Your task to perform on an android device: View the shopping cart on amazon. Add dell alienware to the cart on amazon Image 0: 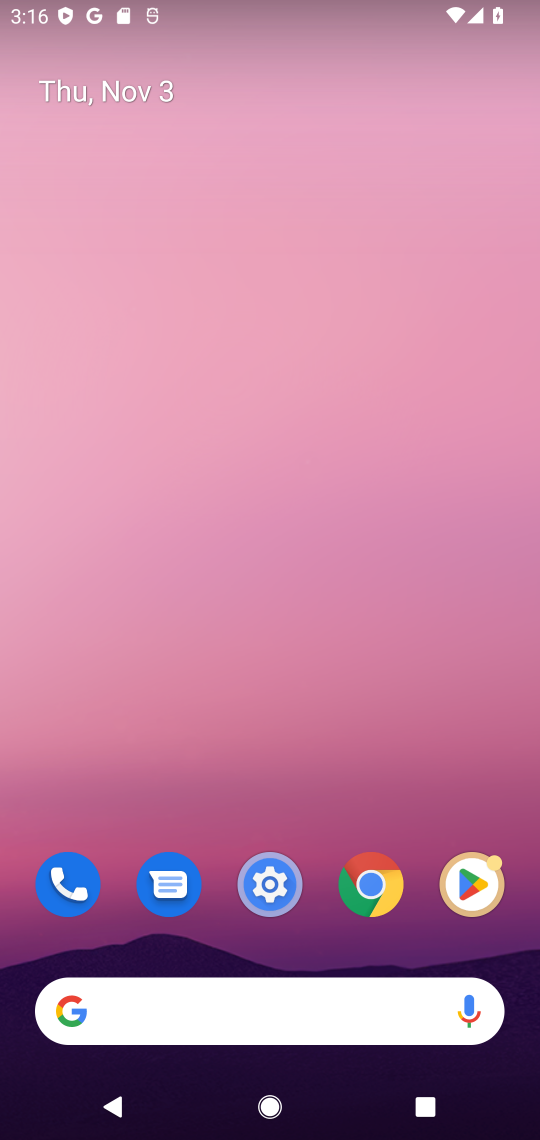
Step 0: press home button
Your task to perform on an android device: View the shopping cart on amazon. Add dell alienware to the cart on amazon Image 1: 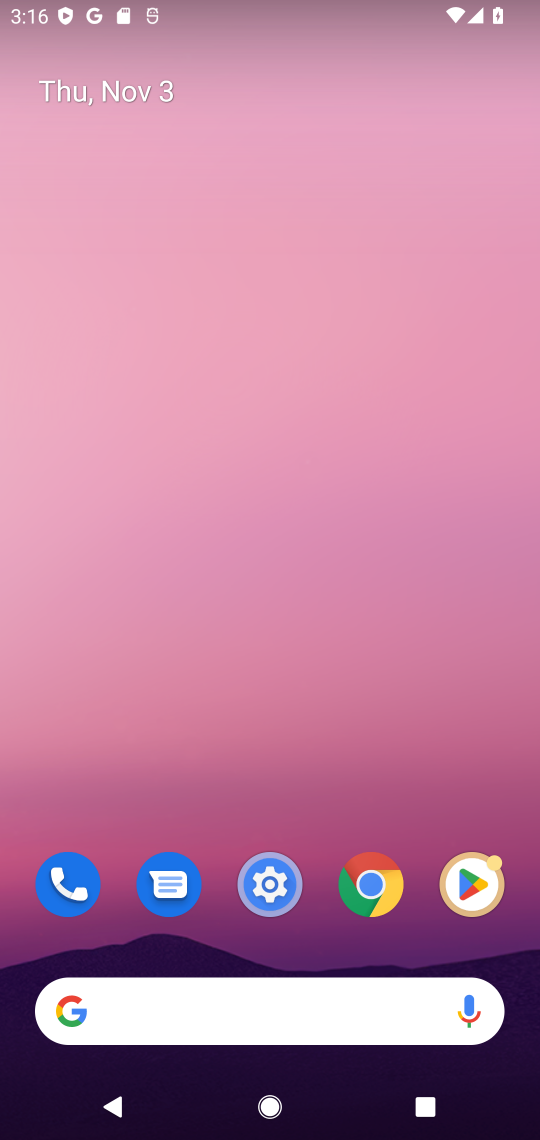
Step 1: click (104, 1005)
Your task to perform on an android device: View the shopping cart on amazon. Add dell alienware to the cart on amazon Image 2: 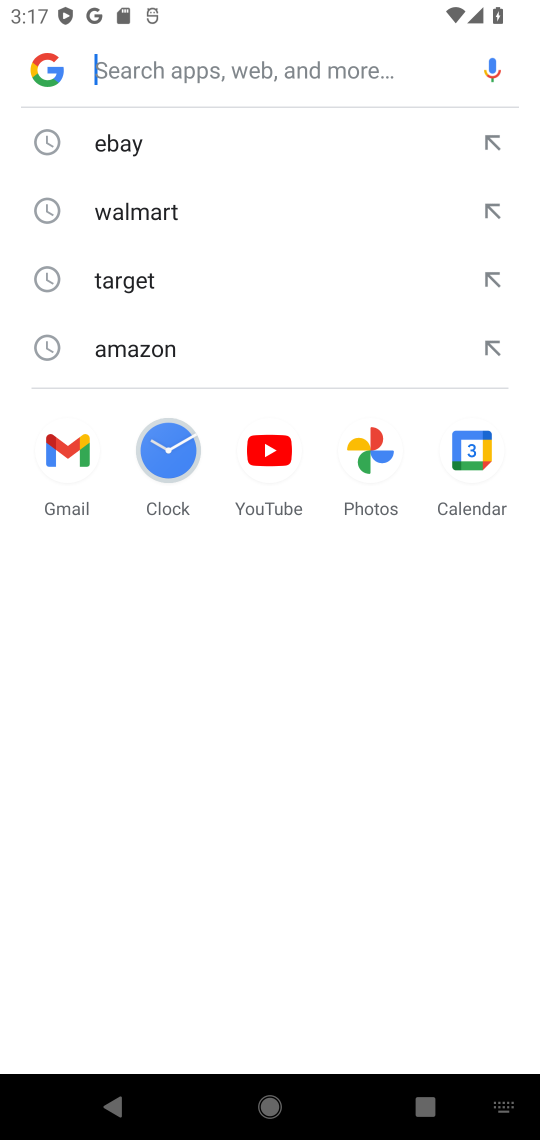
Step 2: type "amazon"
Your task to perform on an android device: View the shopping cart on amazon. Add dell alienware to the cart on amazon Image 3: 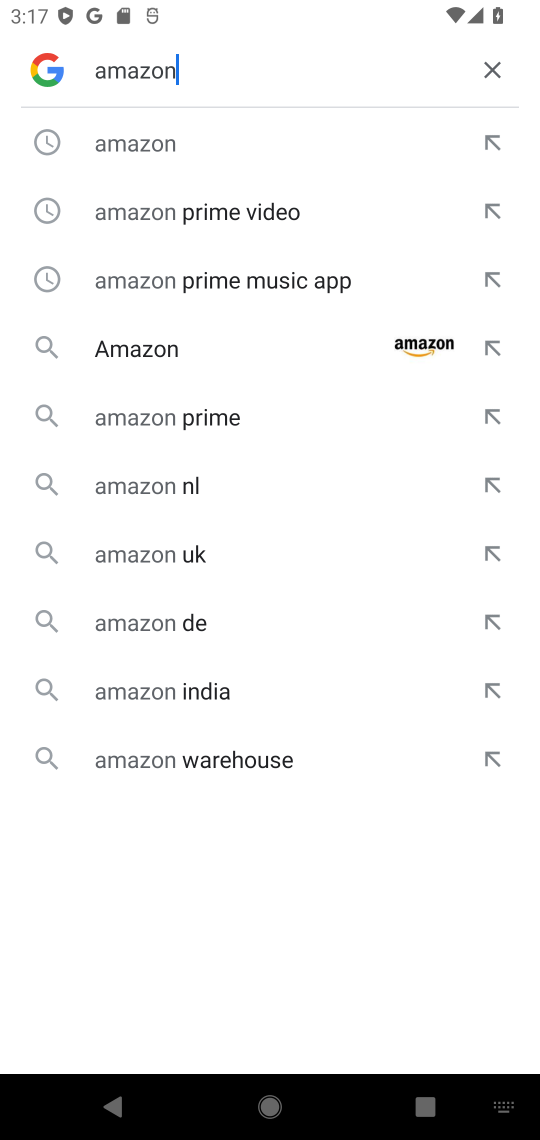
Step 3: press enter
Your task to perform on an android device: View the shopping cart on amazon. Add dell alienware to the cart on amazon Image 4: 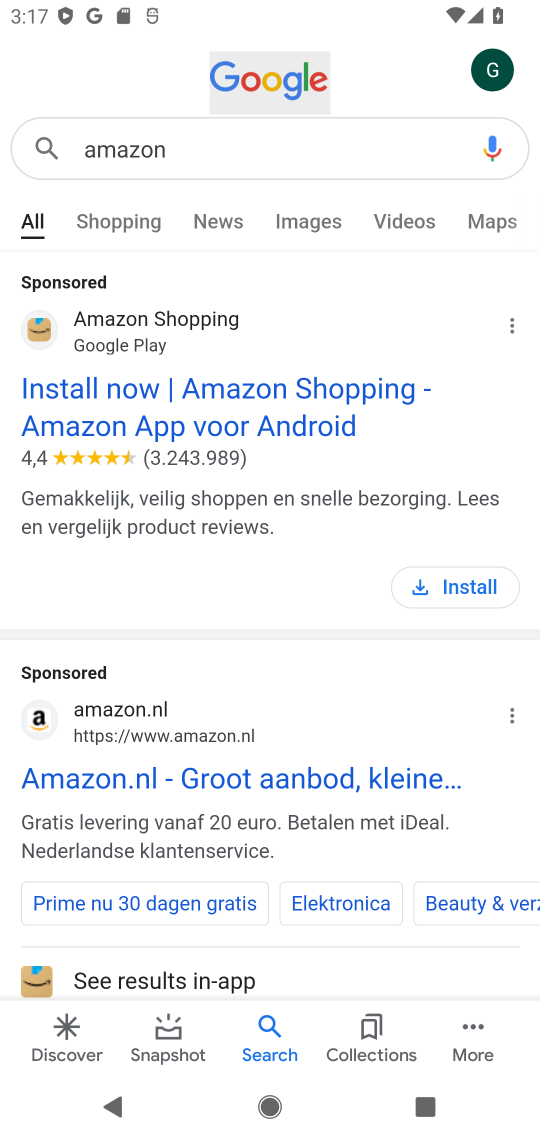
Step 4: drag from (387, 875) to (379, 333)
Your task to perform on an android device: View the shopping cart on amazon. Add dell alienware to the cart on amazon Image 5: 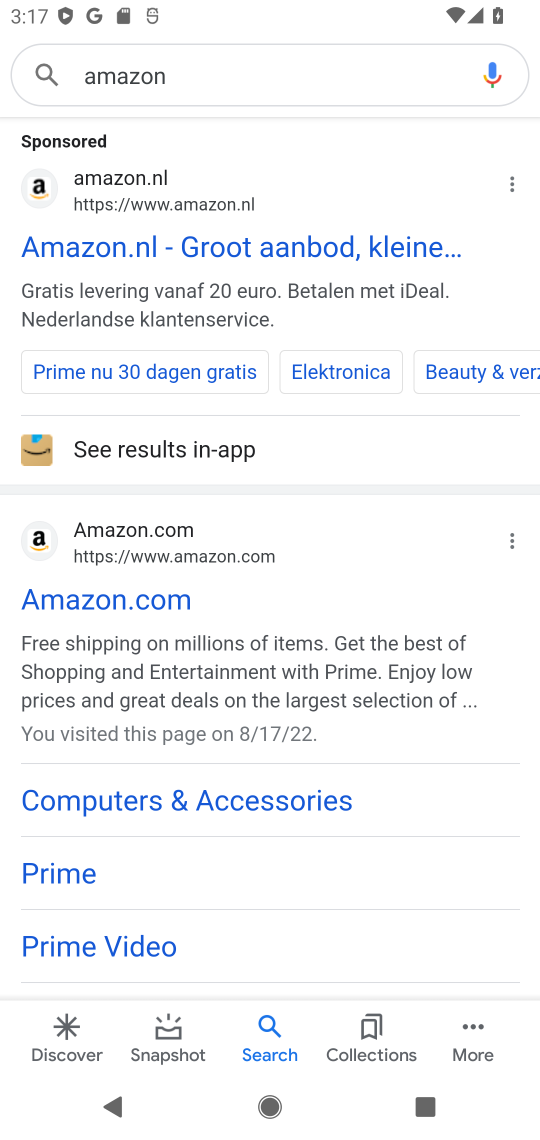
Step 5: click (135, 605)
Your task to perform on an android device: View the shopping cart on amazon. Add dell alienware to the cart on amazon Image 6: 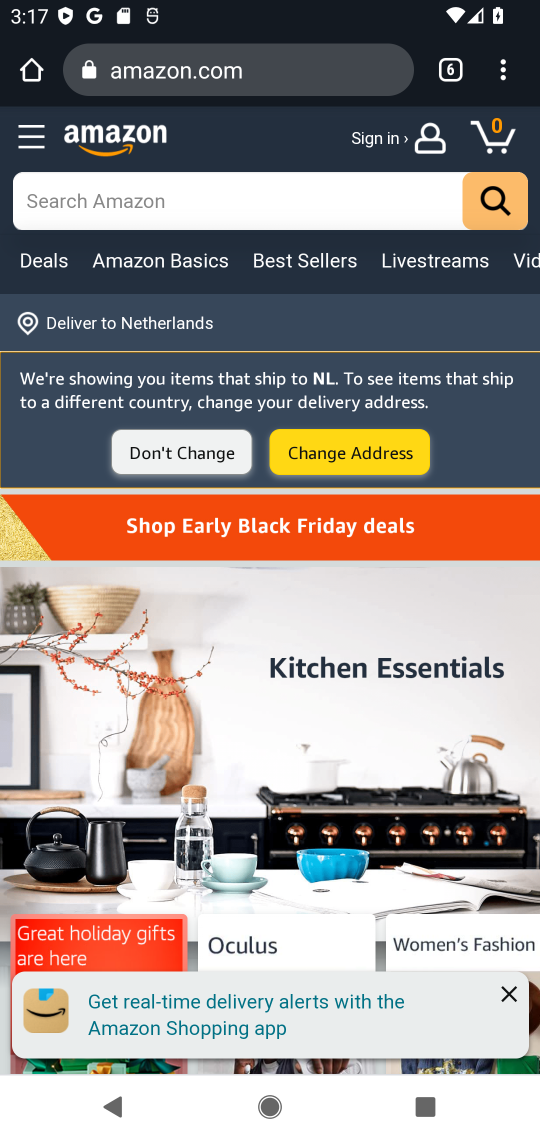
Step 6: click (498, 136)
Your task to perform on an android device: View the shopping cart on amazon. Add dell alienware to the cart on amazon Image 7: 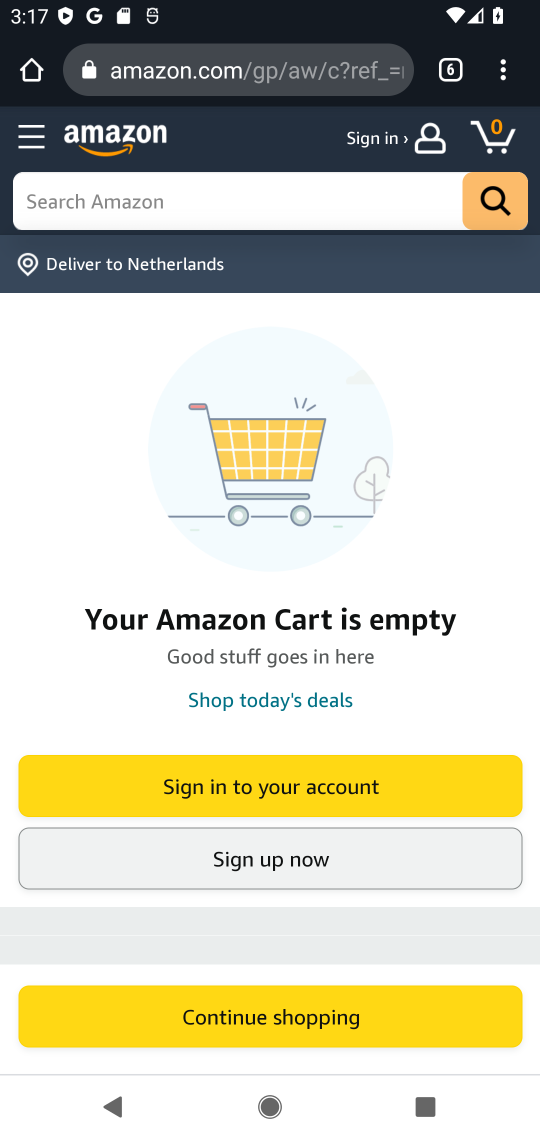
Step 7: click (77, 203)
Your task to perform on an android device: View the shopping cart on amazon. Add dell alienware to the cart on amazon Image 8: 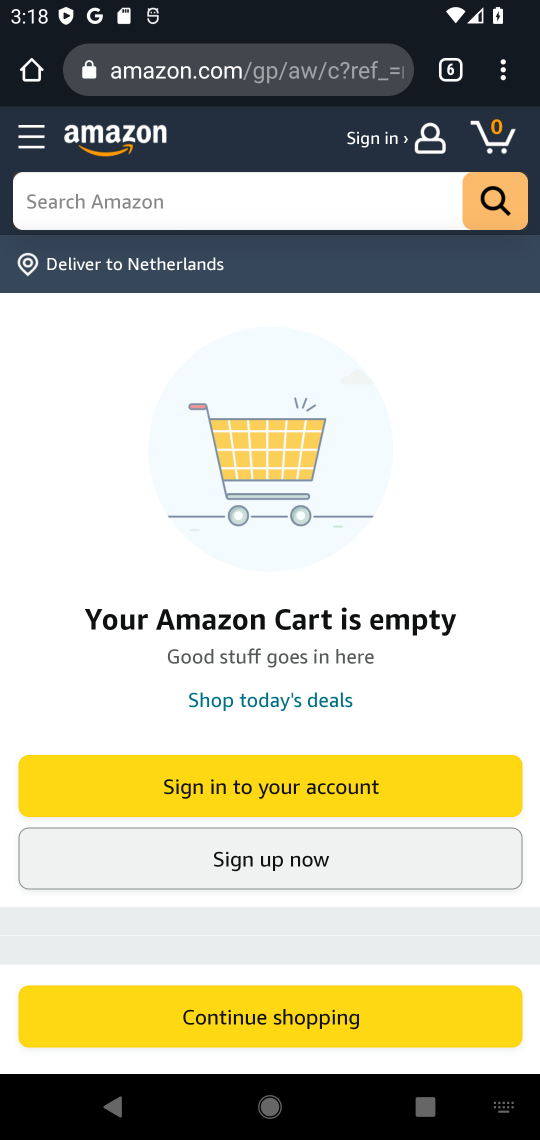
Step 8: type "dell alienware"
Your task to perform on an android device: View the shopping cart on amazon. Add dell alienware to the cart on amazon Image 9: 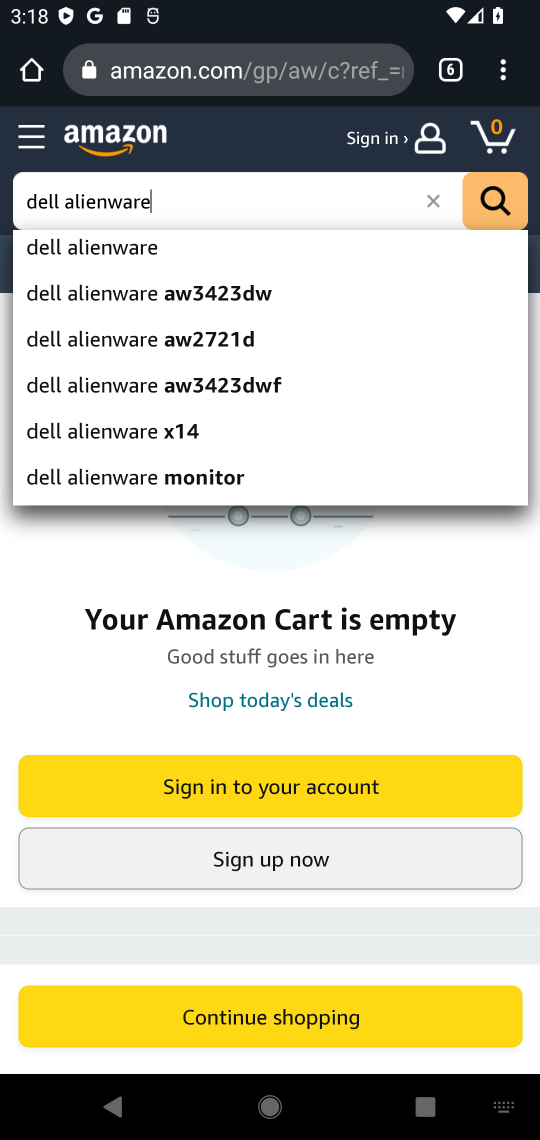
Step 9: click (497, 201)
Your task to perform on an android device: View the shopping cart on amazon. Add dell alienware to the cart on amazon Image 10: 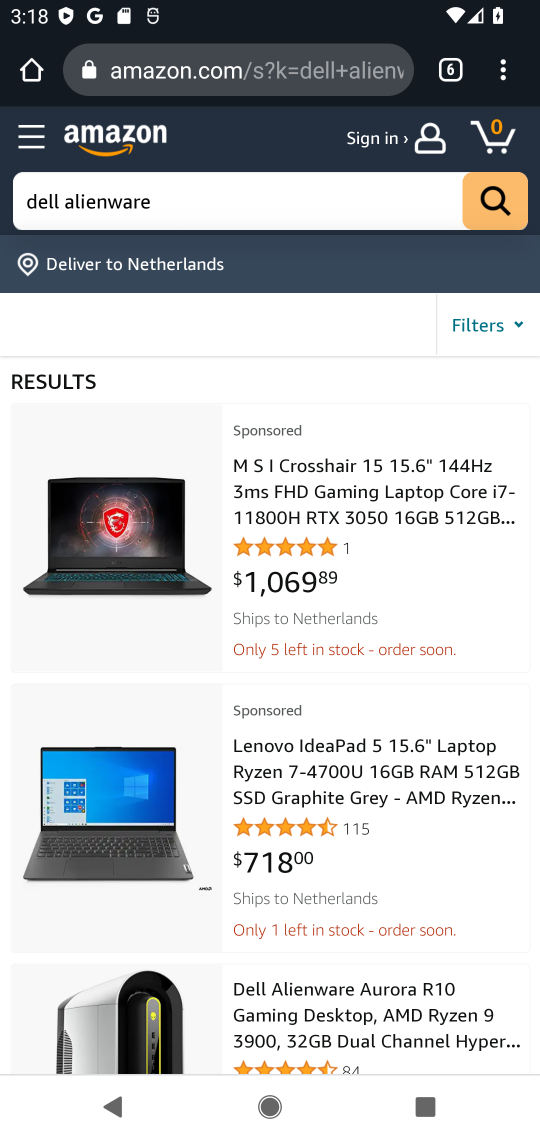
Step 10: drag from (378, 946) to (396, 766)
Your task to perform on an android device: View the shopping cart on amazon. Add dell alienware to the cart on amazon Image 11: 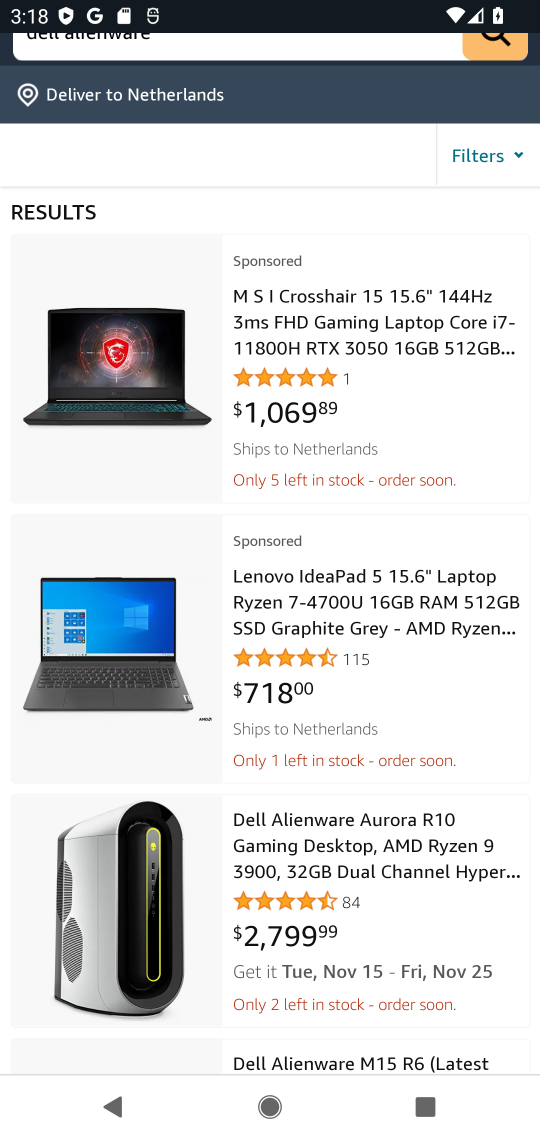
Step 11: drag from (384, 941) to (426, 555)
Your task to perform on an android device: View the shopping cart on amazon. Add dell alienware to the cart on amazon Image 12: 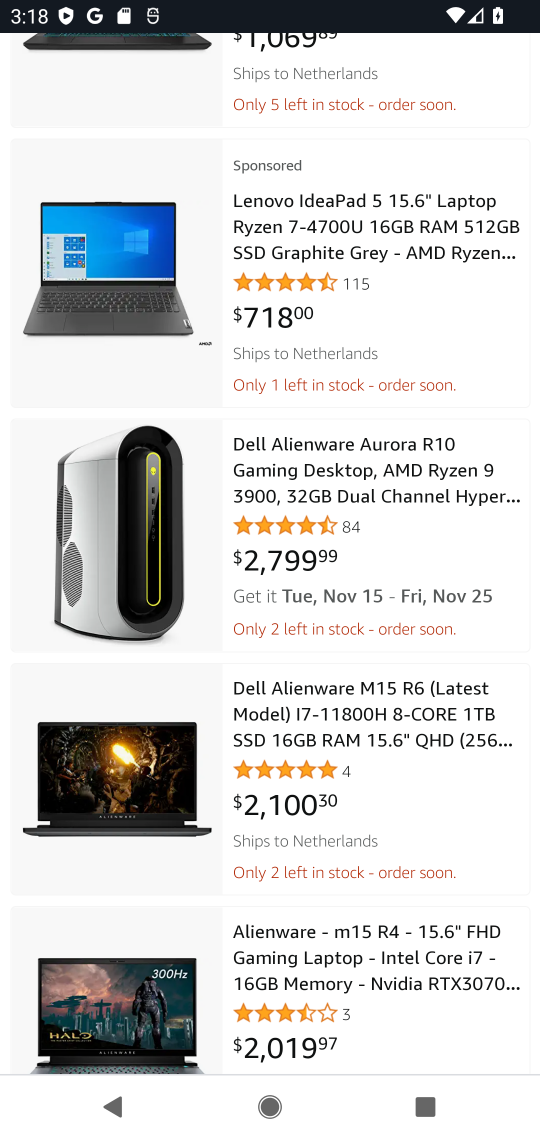
Step 12: click (271, 471)
Your task to perform on an android device: View the shopping cart on amazon. Add dell alienware to the cart on amazon Image 13: 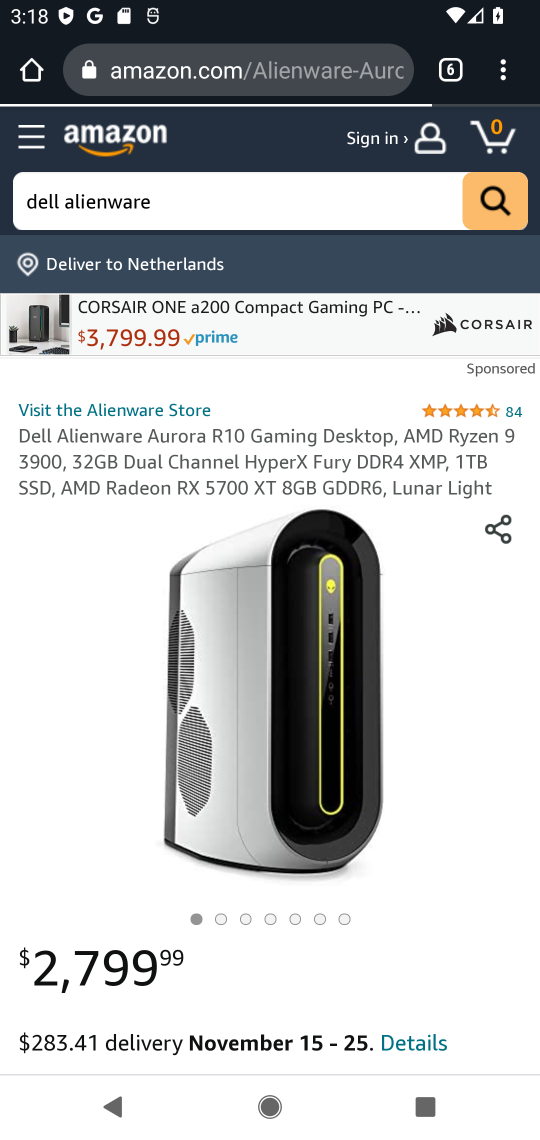
Step 13: drag from (324, 802) to (351, 460)
Your task to perform on an android device: View the shopping cart on amazon. Add dell alienware to the cart on amazon Image 14: 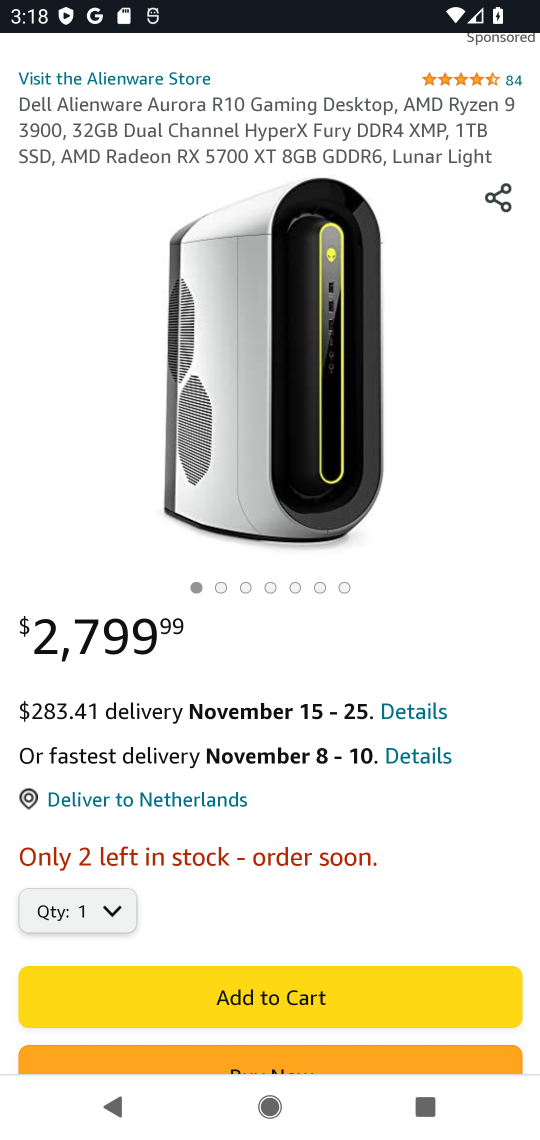
Step 14: drag from (400, 879) to (430, 435)
Your task to perform on an android device: View the shopping cart on amazon. Add dell alienware to the cart on amazon Image 15: 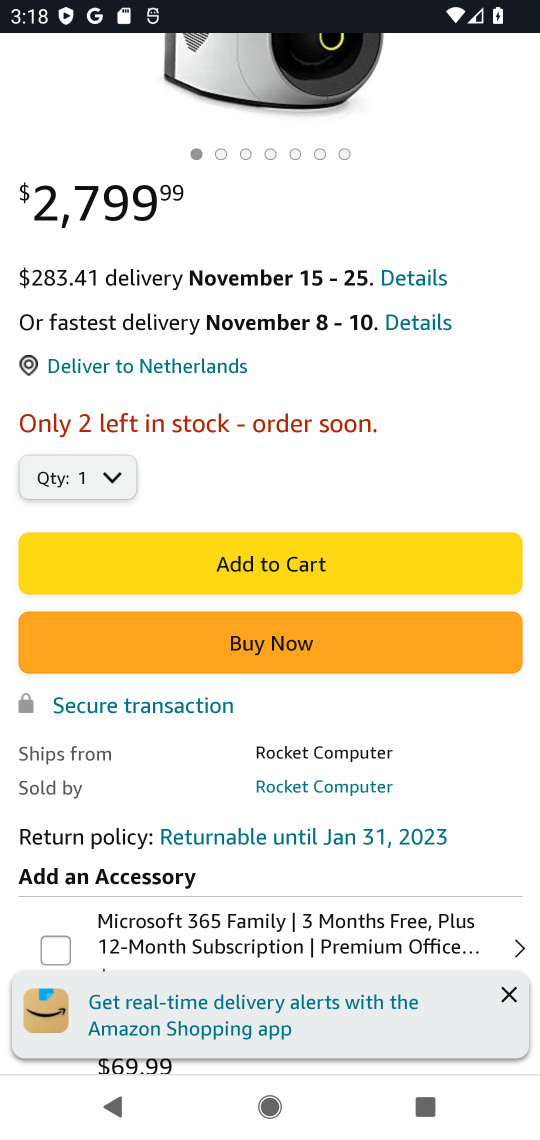
Step 15: click (271, 567)
Your task to perform on an android device: View the shopping cart on amazon. Add dell alienware to the cart on amazon Image 16: 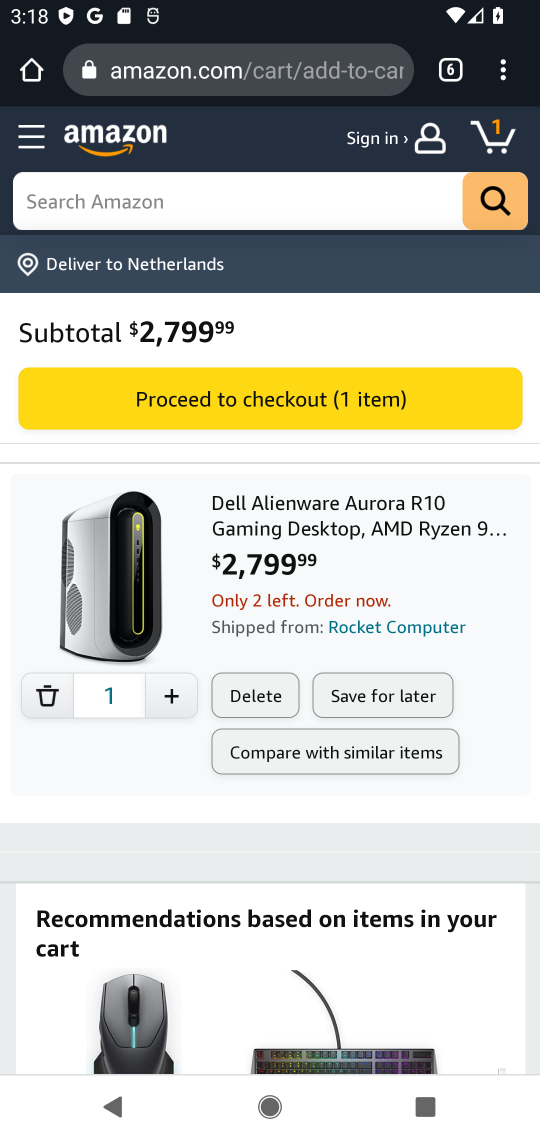
Step 16: task complete